Your task to perform on an android device: change your default location settings in chrome Image 0: 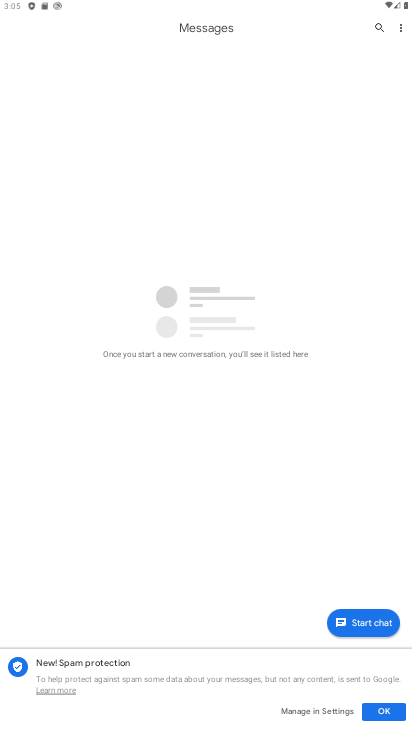
Step 0: press home button
Your task to perform on an android device: change your default location settings in chrome Image 1: 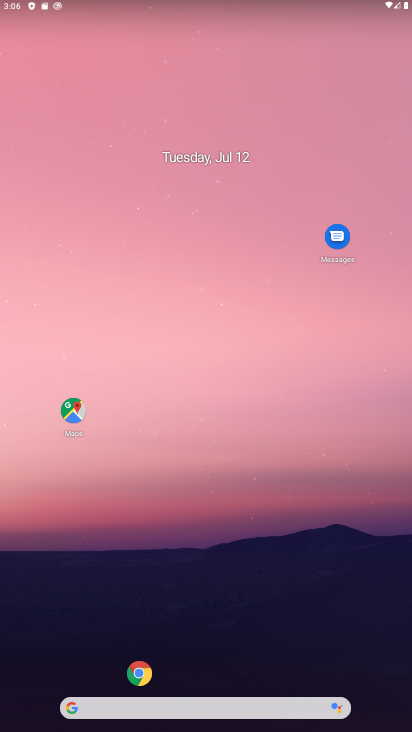
Step 1: click (139, 665)
Your task to perform on an android device: change your default location settings in chrome Image 2: 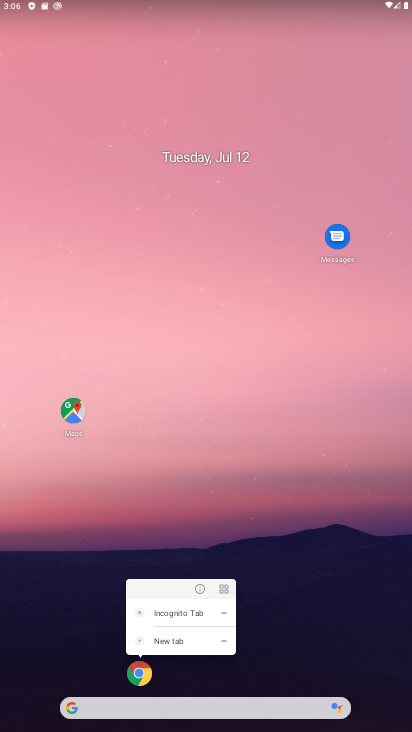
Step 2: click (139, 665)
Your task to perform on an android device: change your default location settings in chrome Image 3: 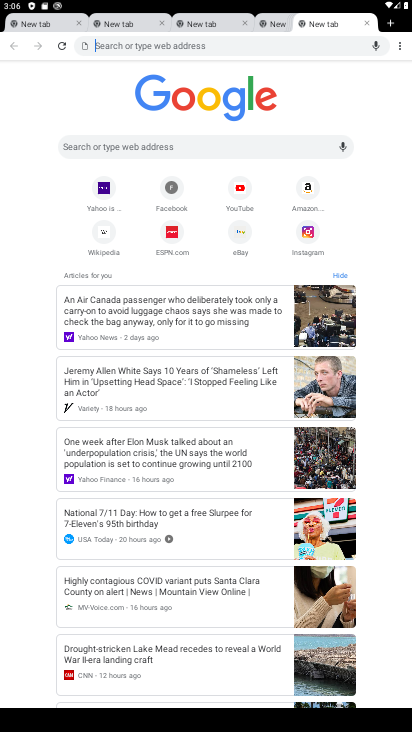
Step 3: click (398, 44)
Your task to perform on an android device: change your default location settings in chrome Image 4: 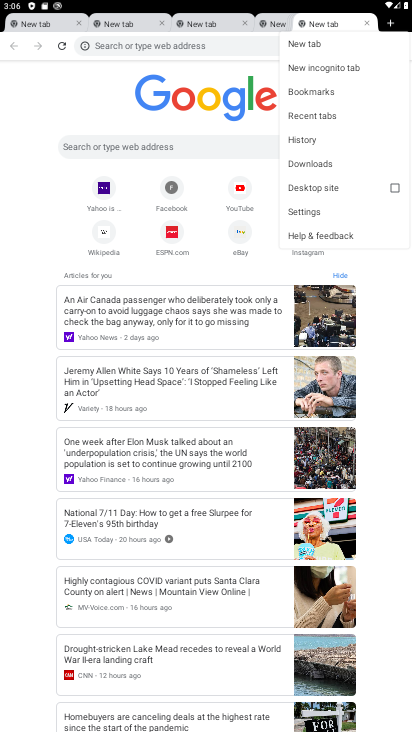
Step 4: click (302, 205)
Your task to perform on an android device: change your default location settings in chrome Image 5: 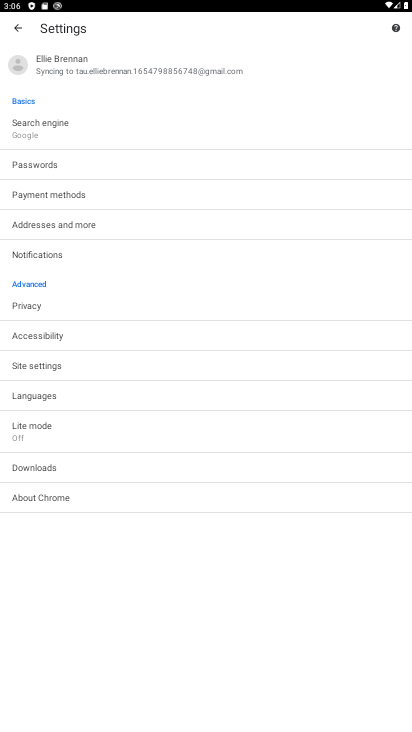
Step 5: click (42, 367)
Your task to perform on an android device: change your default location settings in chrome Image 6: 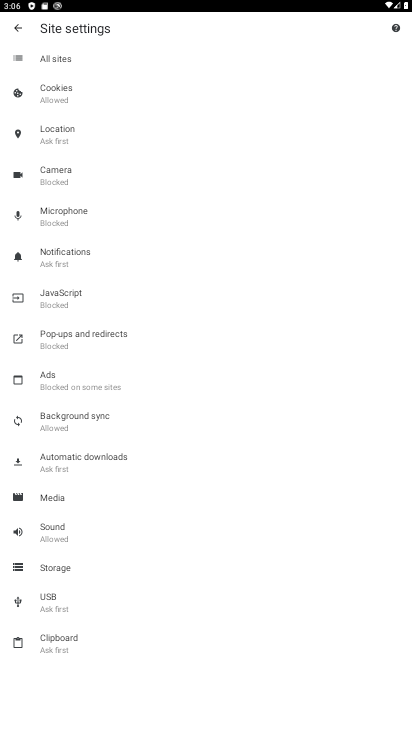
Step 6: click (64, 140)
Your task to perform on an android device: change your default location settings in chrome Image 7: 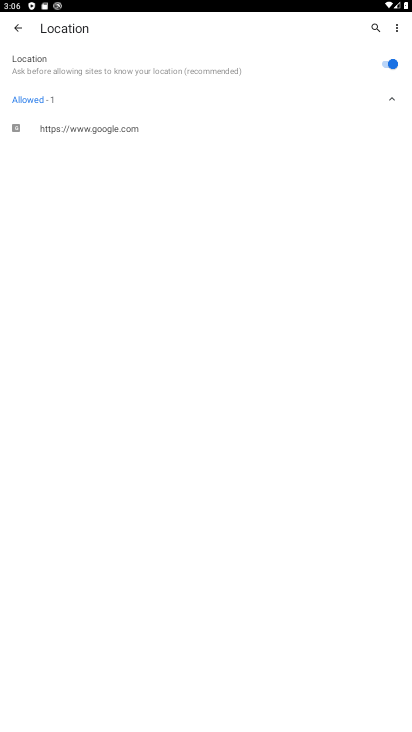
Step 7: click (390, 99)
Your task to perform on an android device: change your default location settings in chrome Image 8: 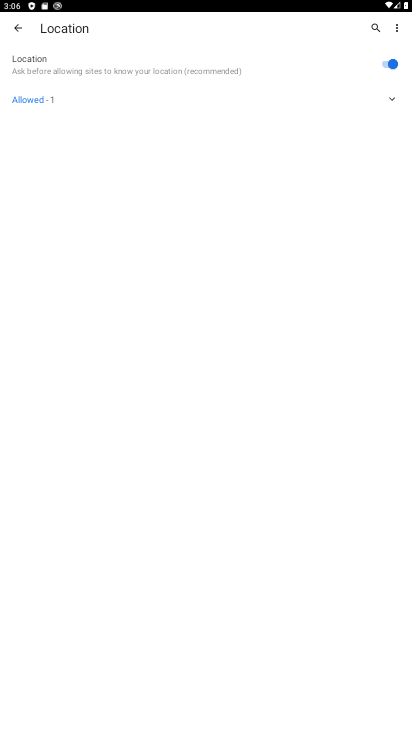
Step 8: task complete